Your task to perform on an android device: Search for seafood restaurants on Google Maps Image 0: 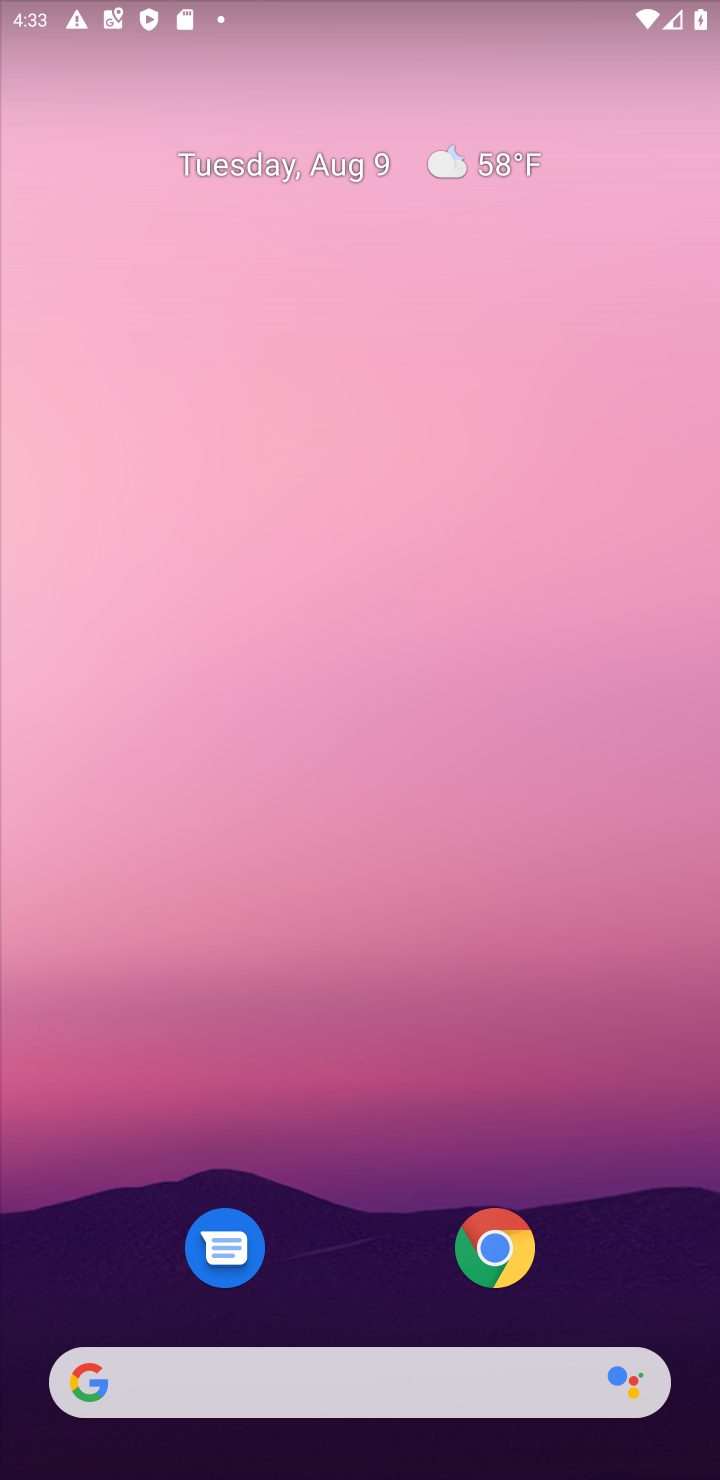
Step 0: drag from (330, 1040) to (315, 0)
Your task to perform on an android device: Search for seafood restaurants on Google Maps Image 1: 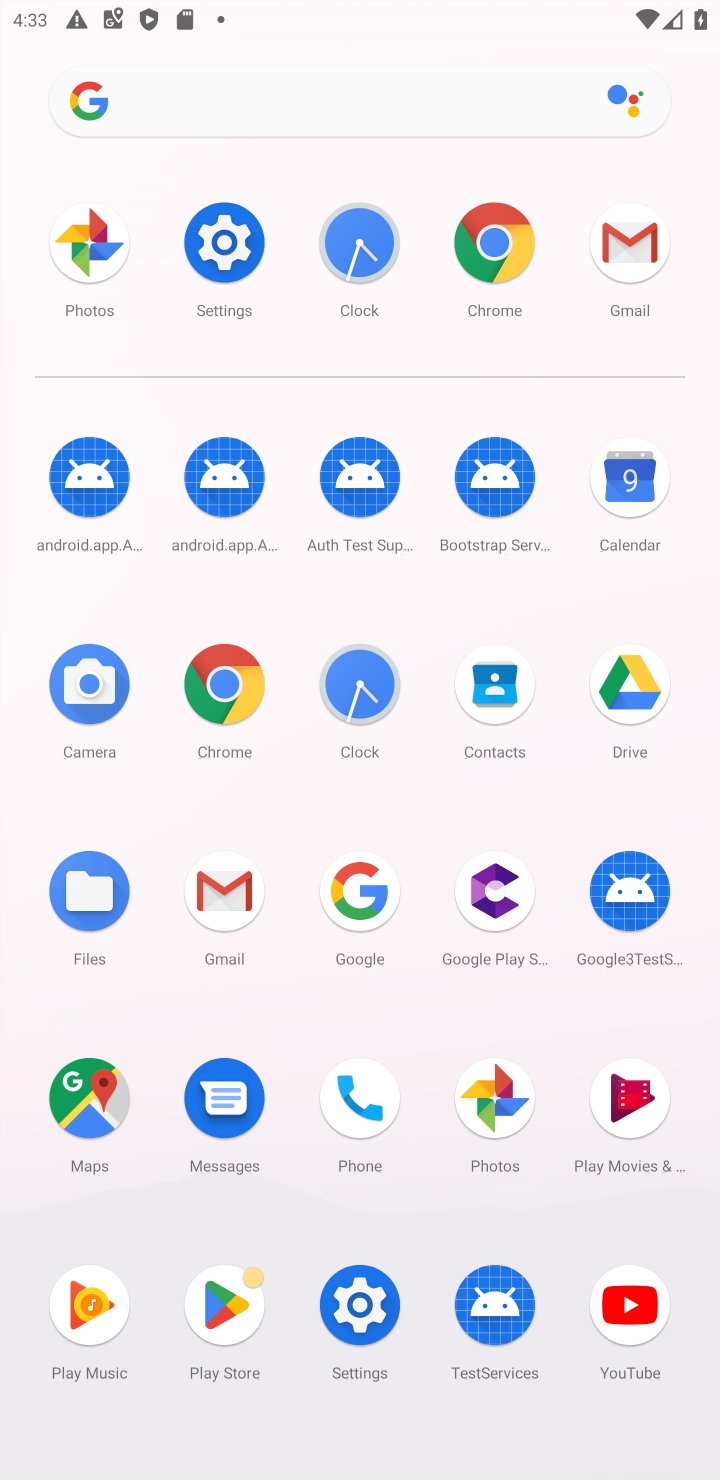
Step 1: click (89, 1110)
Your task to perform on an android device: Search for seafood restaurants on Google Maps Image 2: 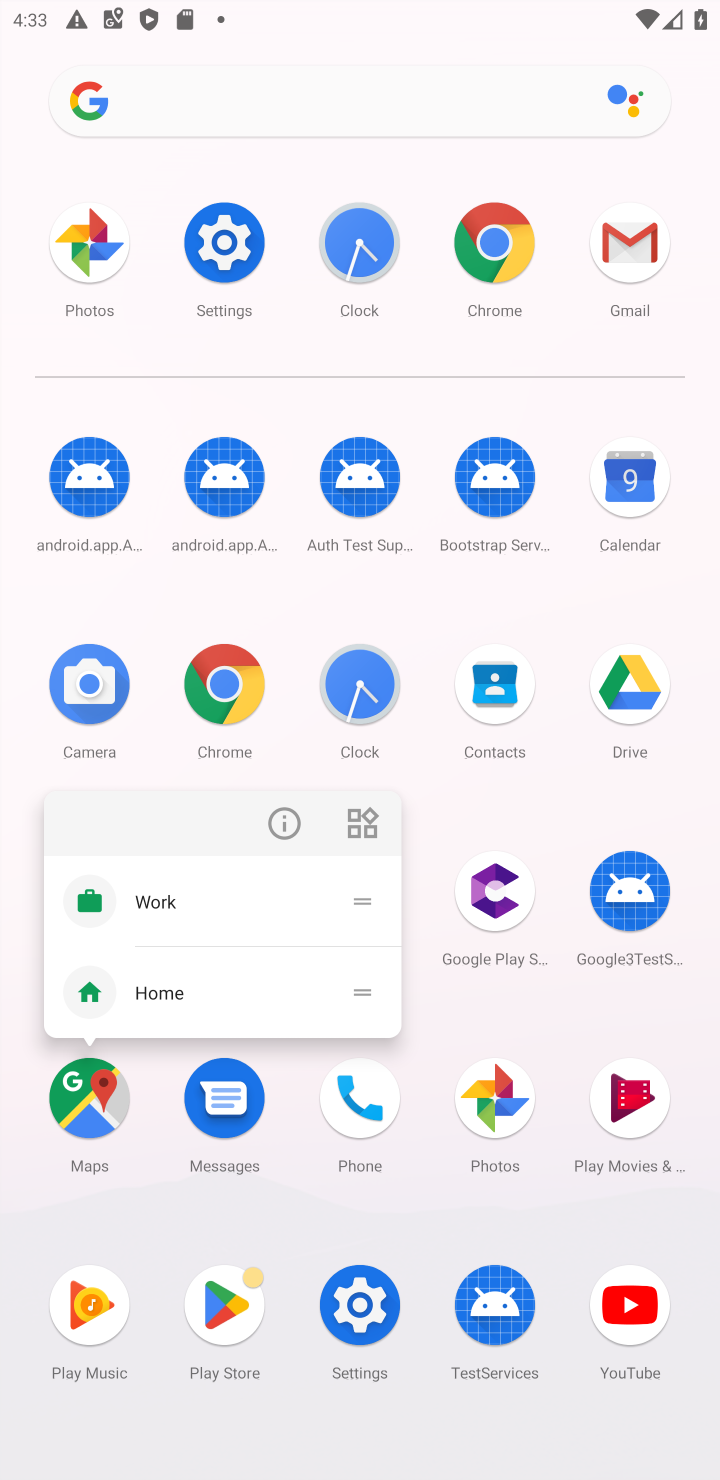
Step 2: click (83, 1083)
Your task to perform on an android device: Search for seafood restaurants on Google Maps Image 3: 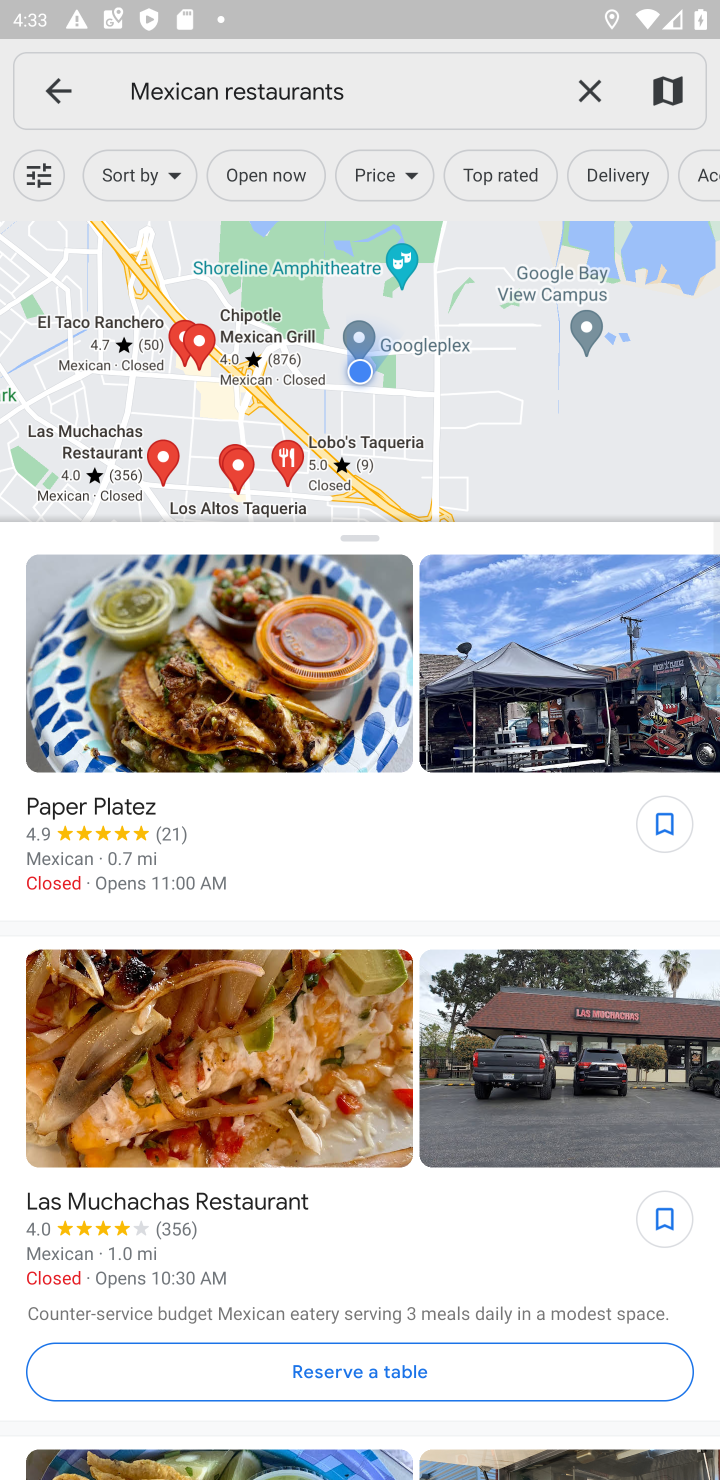
Step 3: click (588, 76)
Your task to perform on an android device: Search for seafood restaurants on Google Maps Image 4: 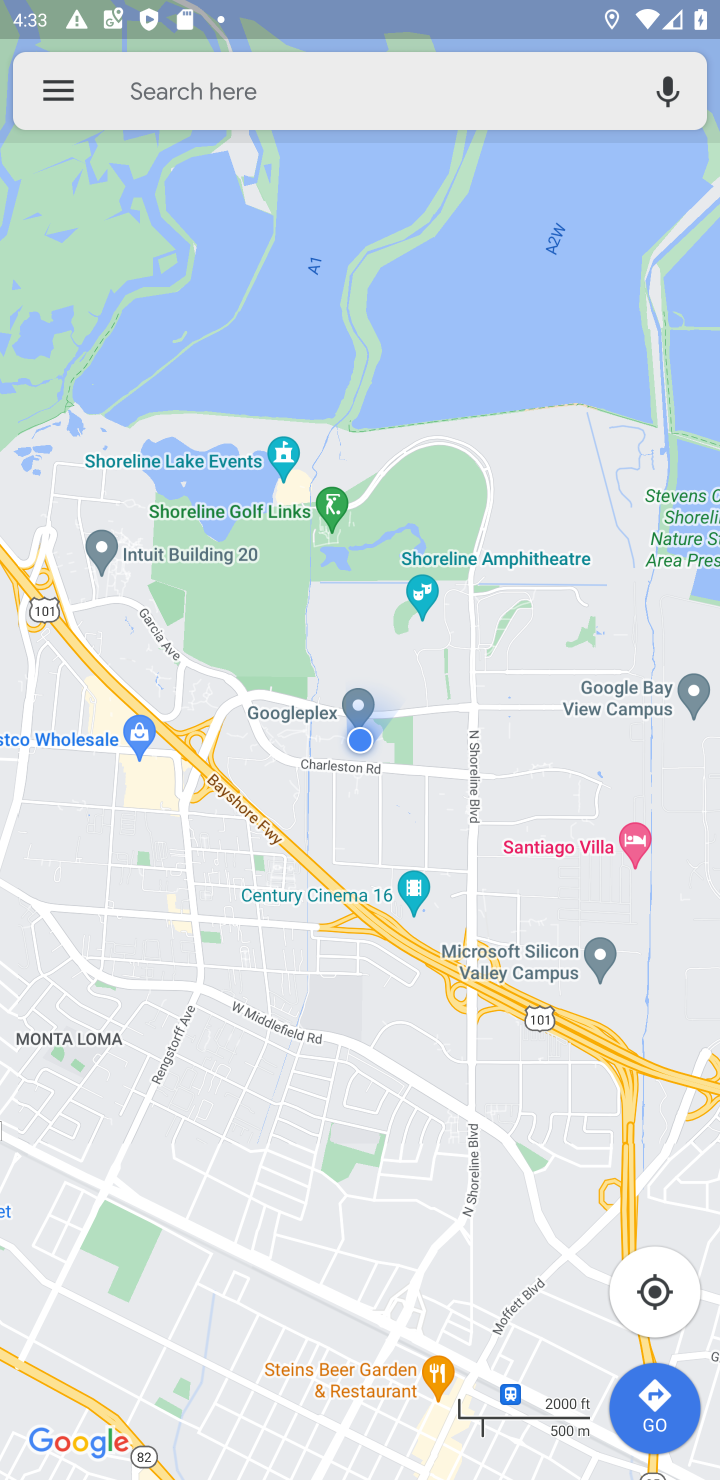
Step 4: click (443, 98)
Your task to perform on an android device: Search for seafood restaurants on Google Maps Image 5: 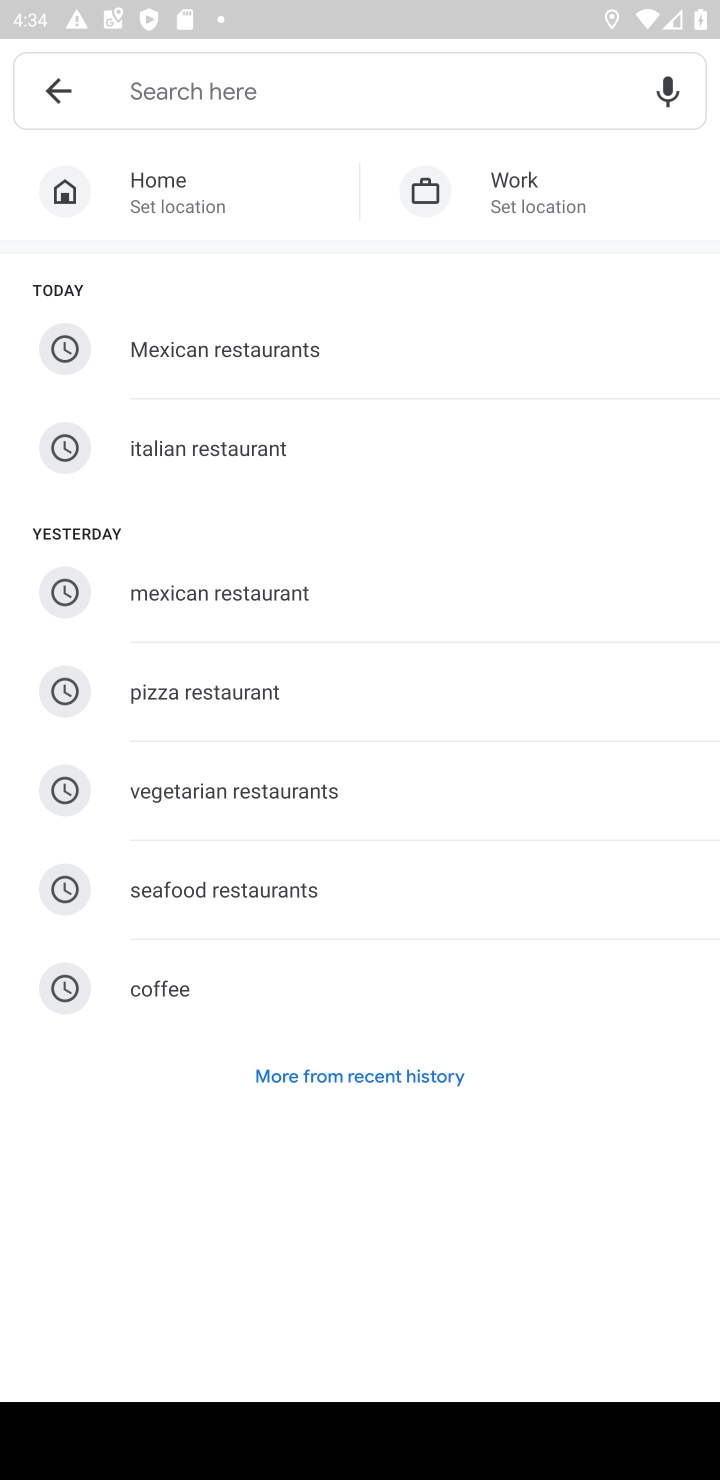
Step 5: click (289, 900)
Your task to perform on an android device: Search for seafood restaurants on Google Maps Image 6: 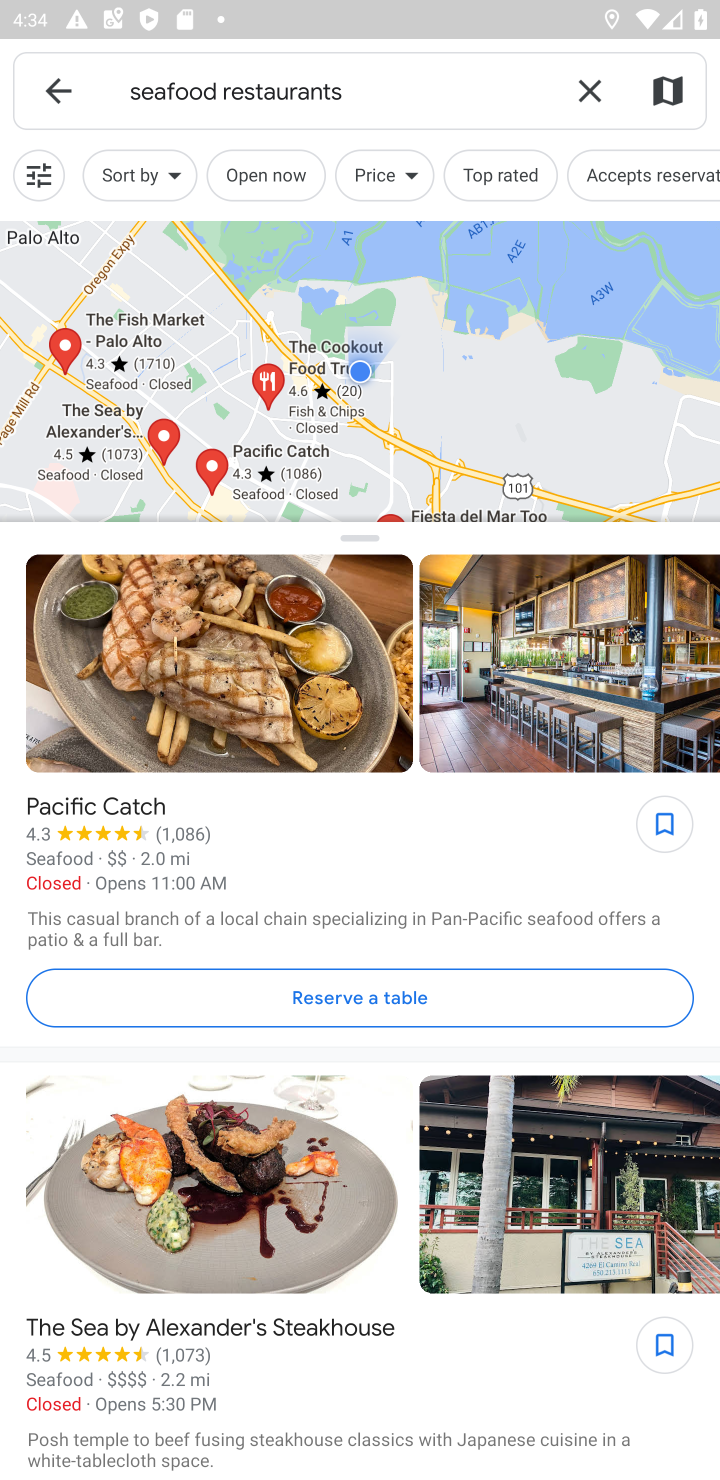
Step 6: task complete